Your task to perform on an android device: Open calendar and show me the second week of next month Image 0: 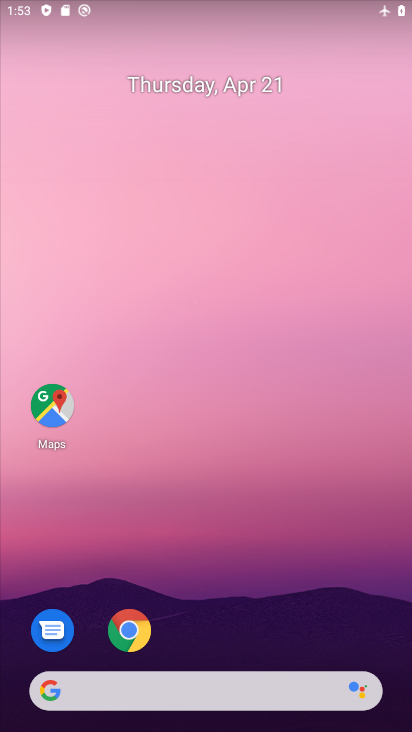
Step 0: drag from (382, 620) to (275, 37)
Your task to perform on an android device: Open calendar and show me the second week of next month Image 1: 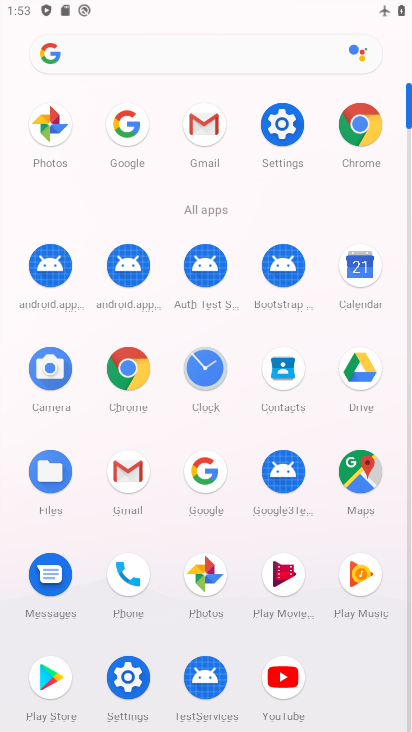
Step 1: click (359, 261)
Your task to perform on an android device: Open calendar and show me the second week of next month Image 2: 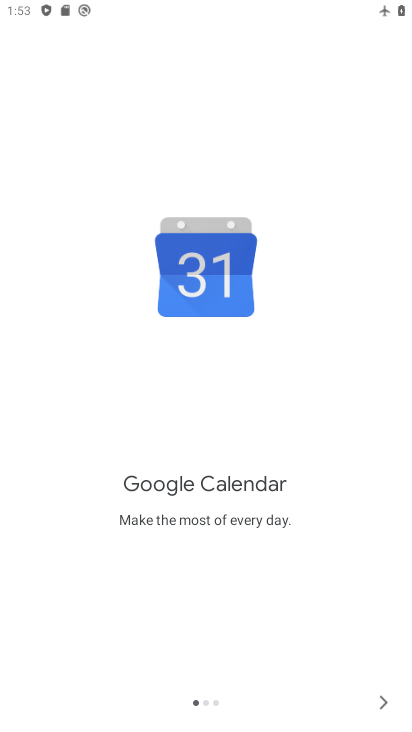
Step 2: click (382, 710)
Your task to perform on an android device: Open calendar and show me the second week of next month Image 3: 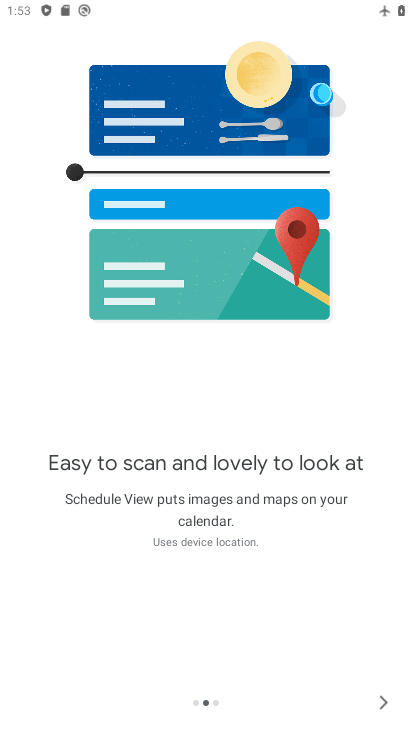
Step 3: click (382, 710)
Your task to perform on an android device: Open calendar and show me the second week of next month Image 4: 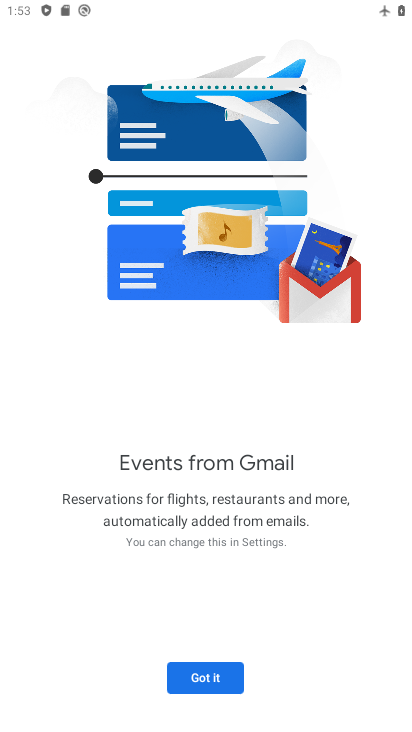
Step 4: click (229, 682)
Your task to perform on an android device: Open calendar and show me the second week of next month Image 5: 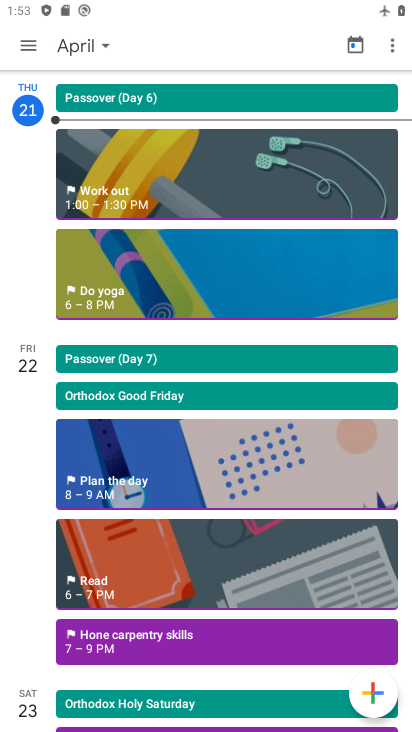
Step 5: click (104, 48)
Your task to perform on an android device: Open calendar and show me the second week of next month Image 6: 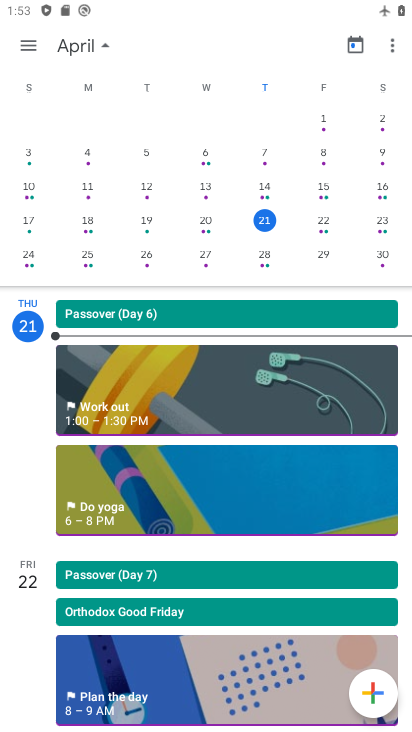
Step 6: drag from (373, 231) to (0, 184)
Your task to perform on an android device: Open calendar and show me the second week of next month Image 7: 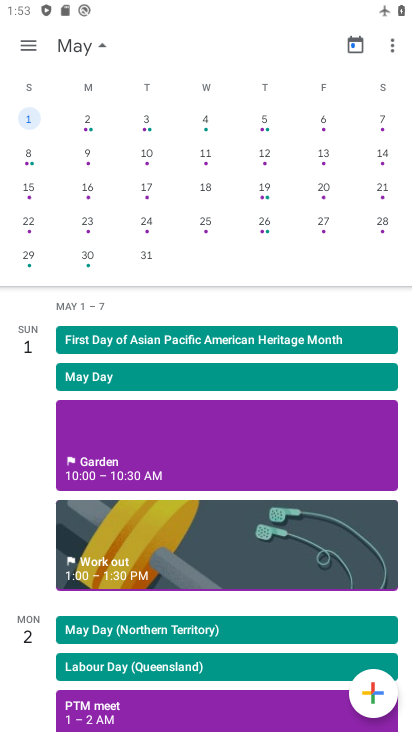
Step 7: click (30, 46)
Your task to perform on an android device: Open calendar and show me the second week of next month Image 8: 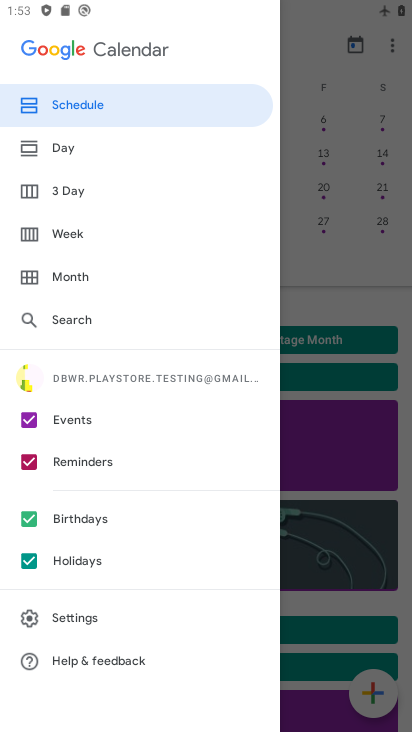
Step 8: click (65, 239)
Your task to perform on an android device: Open calendar and show me the second week of next month Image 9: 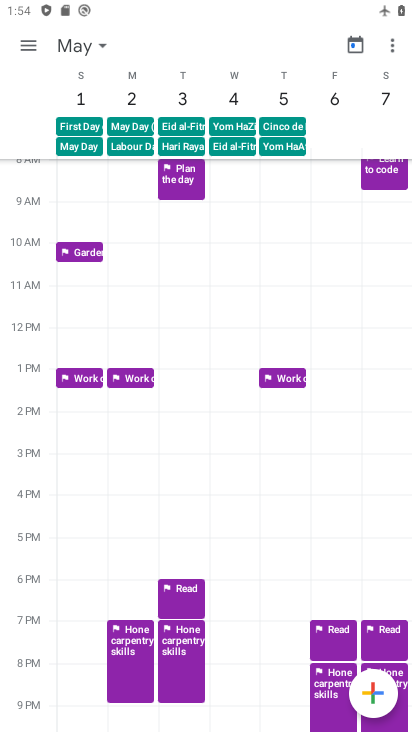
Step 9: task complete